Your task to perform on an android device: Open wifi settings Image 0: 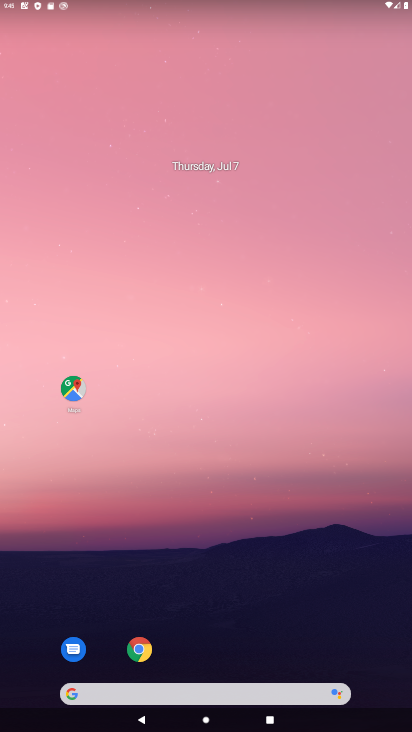
Step 0: drag from (208, 512) to (208, 134)
Your task to perform on an android device: Open wifi settings Image 1: 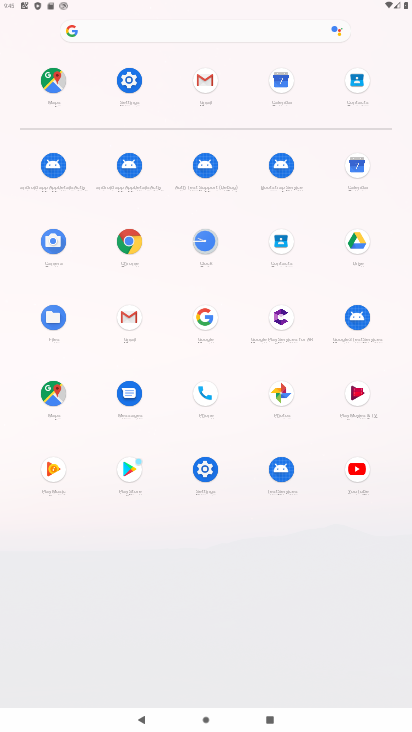
Step 1: click (202, 481)
Your task to perform on an android device: Open wifi settings Image 2: 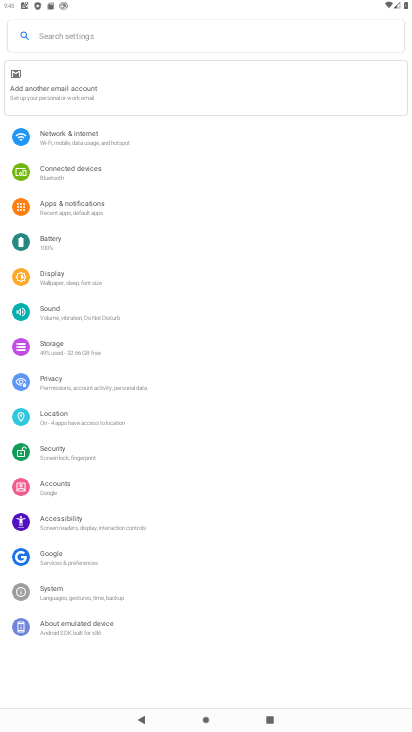
Step 2: click (61, 138)
Your task to perform on an android device: Open wifi settings Image 3: 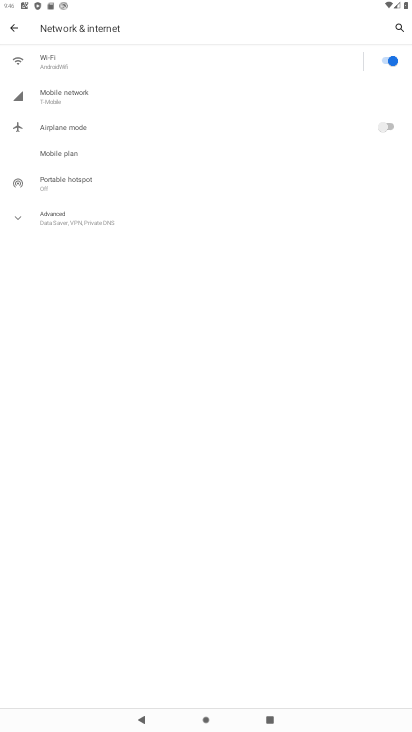
Step 3: click (54, 64)
Your task to perform on an android device: Open wifi settings Image 4: 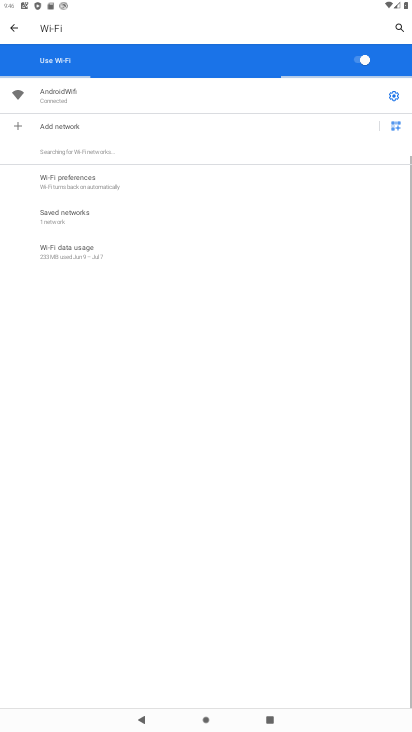
Step 4: task complete